Your task to perform on an android device: open chrome privacy settings Image 0: 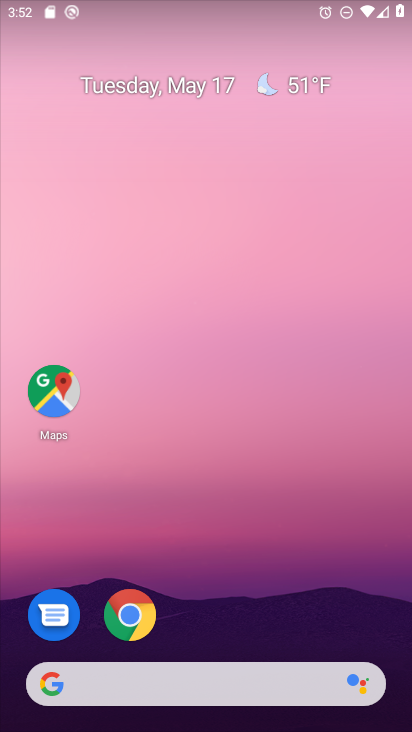
Step 0: drag from (208, 642) to (195, 54)
Your task to perform on an android device: open chrome privacy settings Image 1: 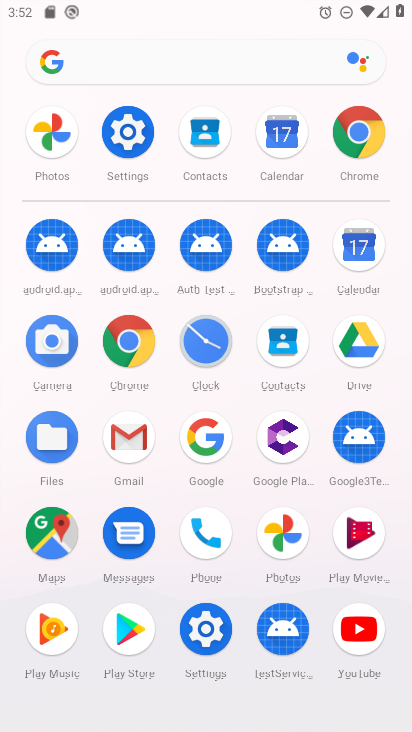
Step 1: click (123, 334)
Your task to perform on an android device: open chrome privacy settings Image 2: 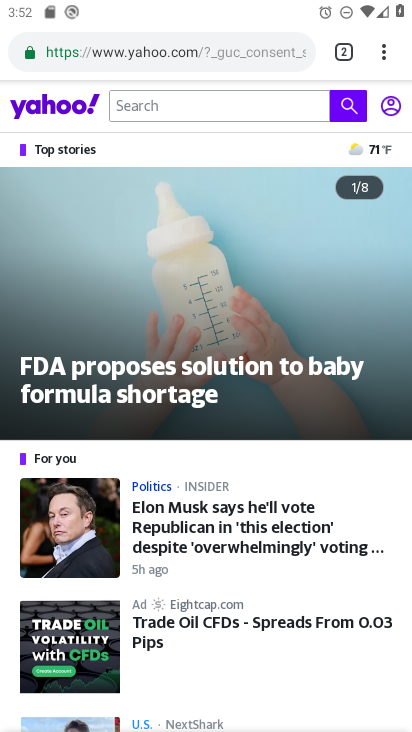
Step 2: click (384, 50)
Your task to perform on an android device: open chrome privacy settings Image 3: 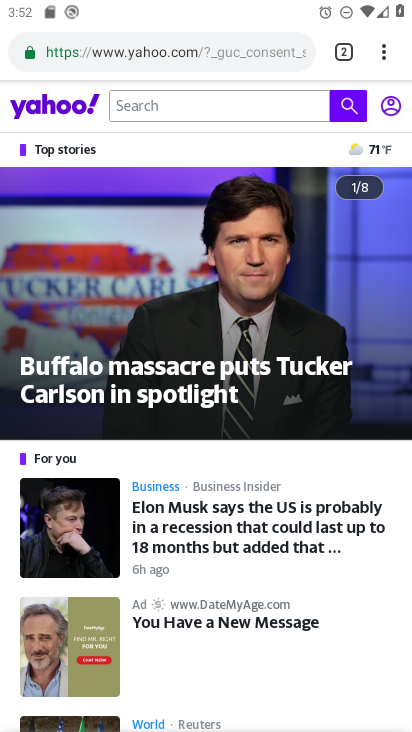
Step 3: click (382, 46)
Your task to perform on an android device: open chrome privacy settings Image 4: 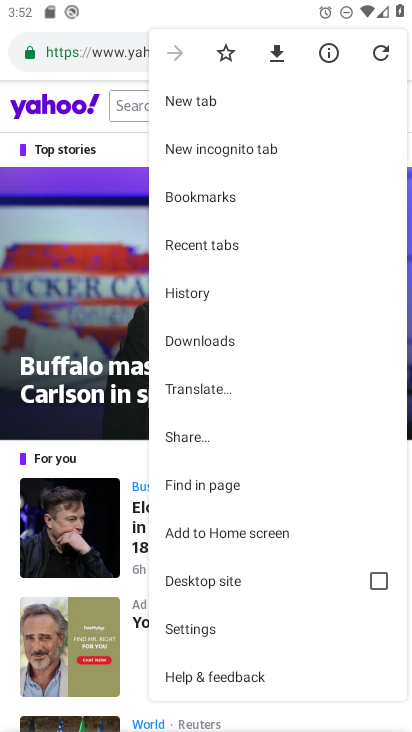
Step 4: click (222, 628)
Your task to perform on an android device: open chrome privacy settings Image 5: 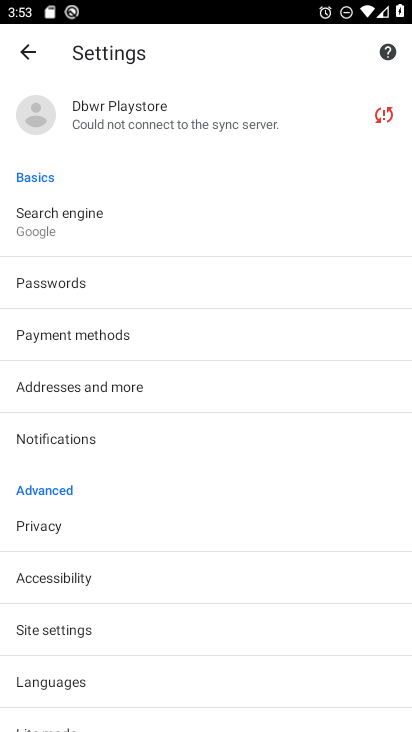
Step 5: click (80, 528)
Your task to perform on an android device: open chrome privacy settings Image 6: 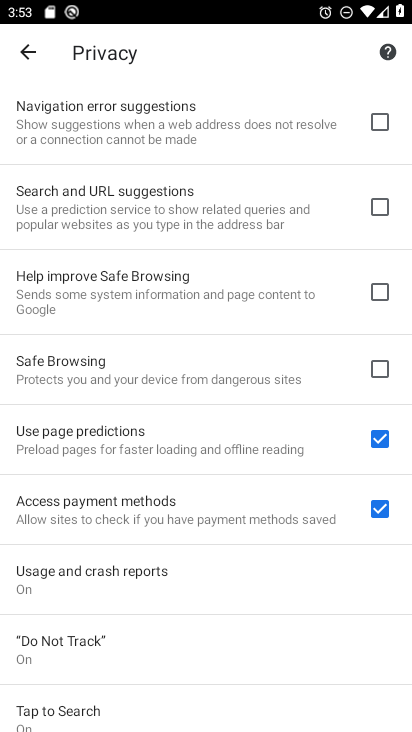
Step 6: task complete